Your task to perform on an android device: toggle show notifications on the lock screen Image 0: 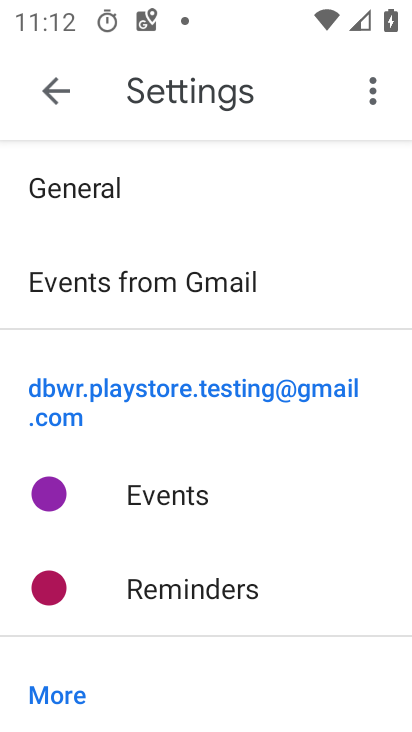
Step 0: press back button
Your task to perform on an android device: toggle show notifications on the lock screen Image 1: 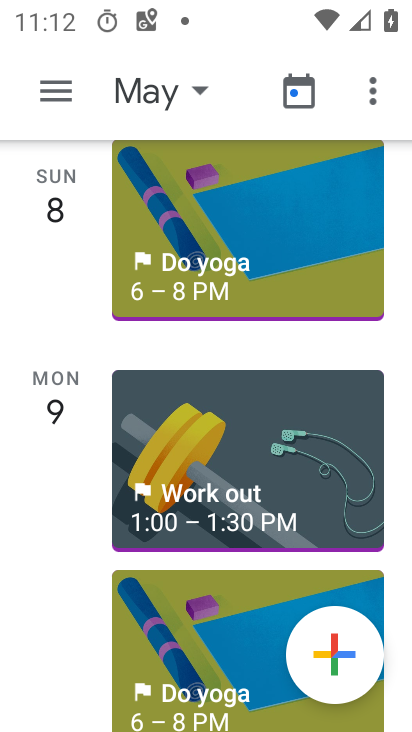
Step 1: press back button
Your task to perform on an android device: toggle show notifications on the lock screen Image 2: 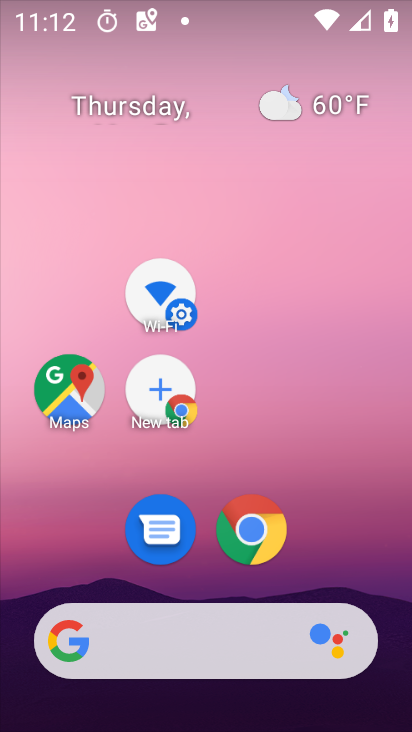
Step 2: drag from (337, 605) to (101, 8)
Your task to perform on an android device: toggle show notifications on the lock screen Image 3: 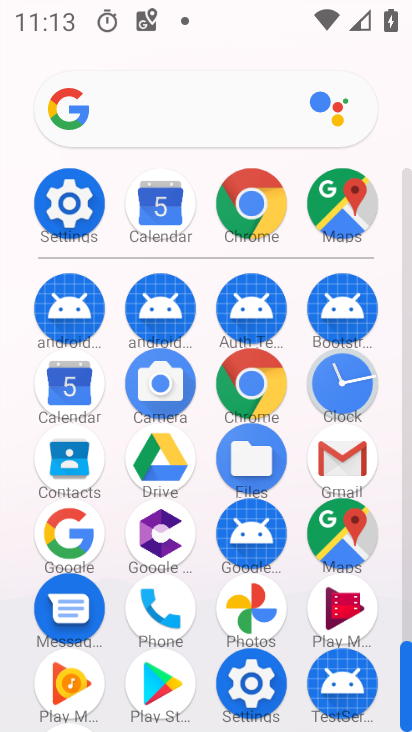
Step 3: click (69, 205)
Your task to perform on an android device: toggle show notifications on the lock screen Image 4: 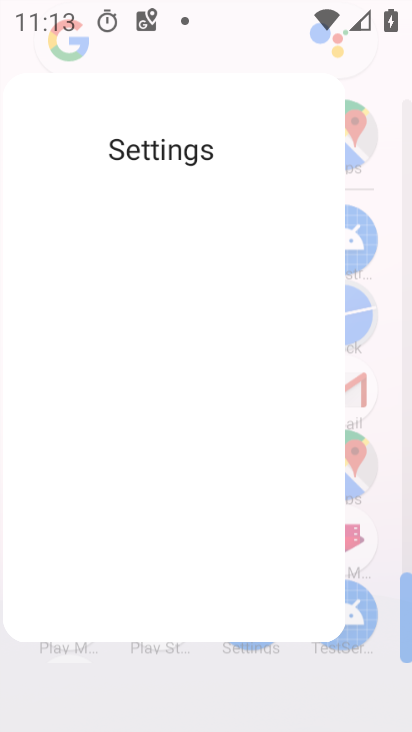
Step 4: click (69, 205)
Your task to perform on an android device: toggle show notifications on the lock screen Image 5: 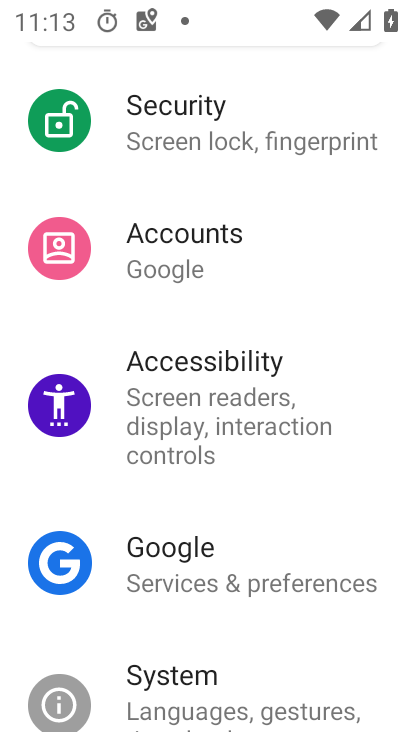
Step 5: drag from (170, 193) to (239, 373)
Your task to perform on an android device: toggle show notifications on the lock screen Image 6: 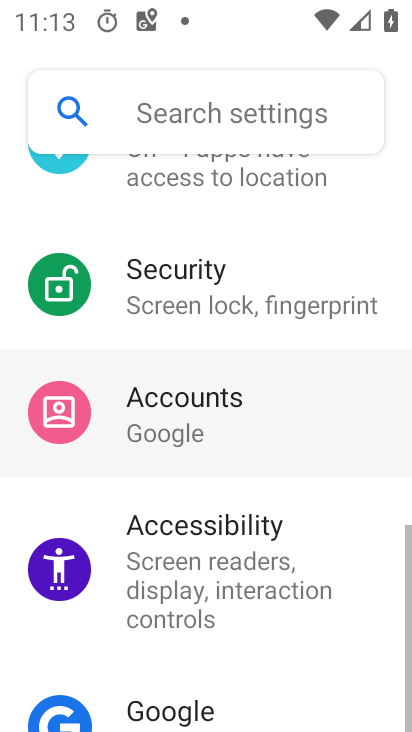
Step 6: drag from (166, 110) to (294, 592)
Your task to perform on an android device: toggle show notifications on the lock screen Image 7: 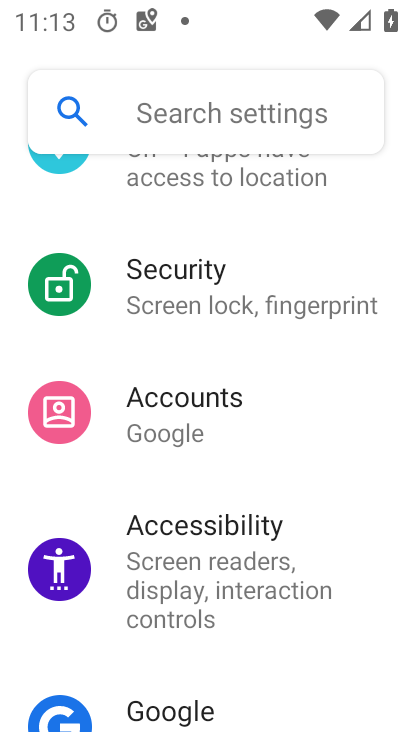
Step 7: drag from (200, 287) to (300, 565)
Your task to perform on an android device: toggle show notifications on the lock screen Image 8: 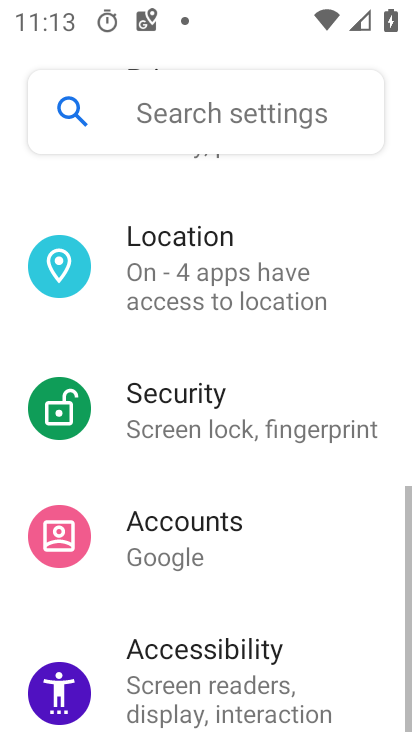
Step 8: drag from (231, 298) to (260, 648)
Your task to perform on an android device: toggle show notifications on the lock screen Image 9: 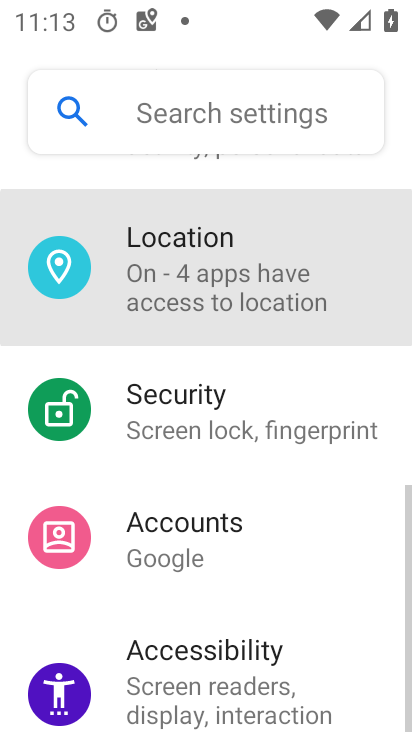
Step 9: drag from (194, 290) to (270, 626)
Your task to perform on an android device: toggle show notifications on the lock screen Image 10: 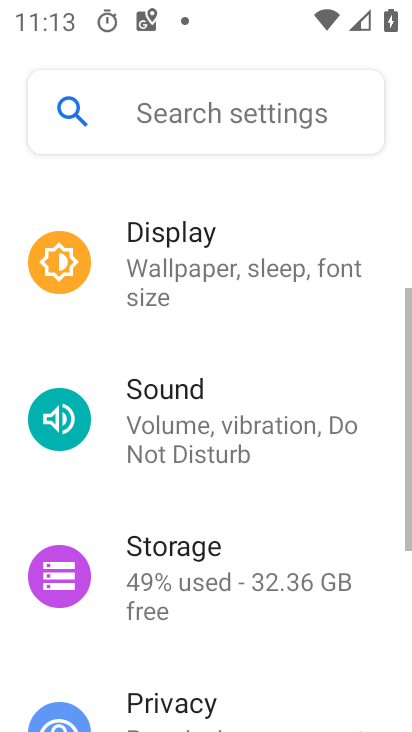
Step 10: drag from (263, 290) to (303, 574)
Your task to perform on an android device: toggle show notifications on the lock screen Image 11: 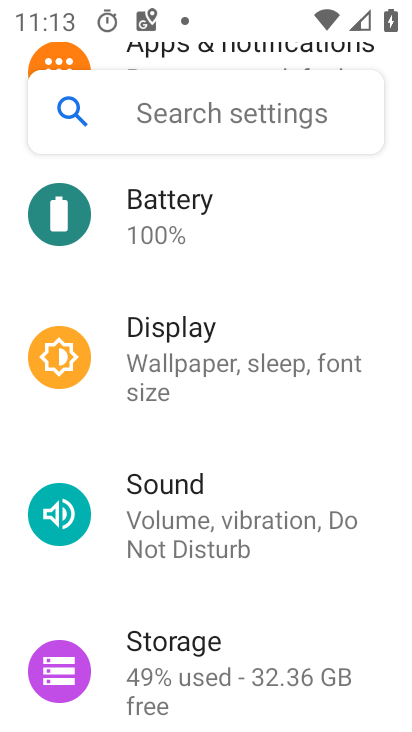
Step 11: drag from (222, 319) to (329, 711)
Your task to perform on an android device: toggle show notifications on the lock screen Image 12: 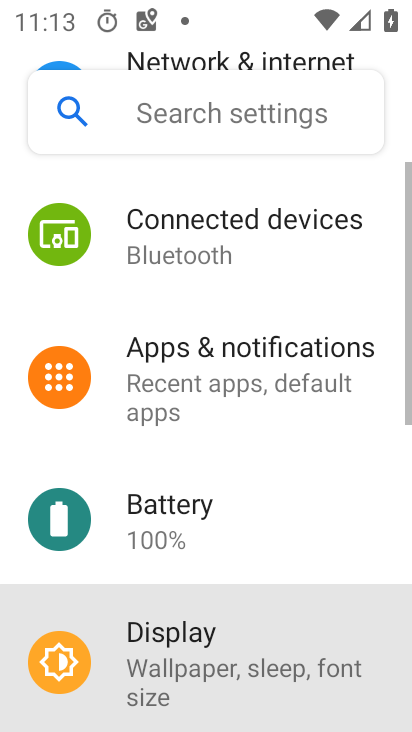
Step 12: drag from (220, 370) to (338, 726)
Your task to perform on an android device: toggle show notifications on the lock screen Image 13: 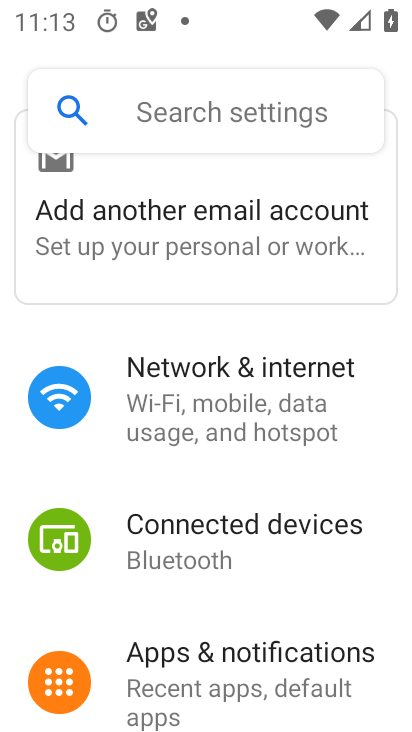
Step 13: click (209, 672)
Your task to perform on an android device: toggle show notifications on the lock screen Image 14: 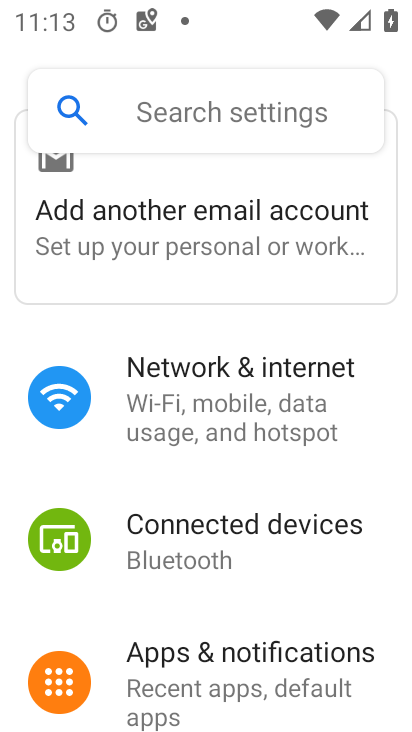
Step 14: click (209, 672)
Your task to perform on an android device: toggle show notifications on the lock screen Image 15: 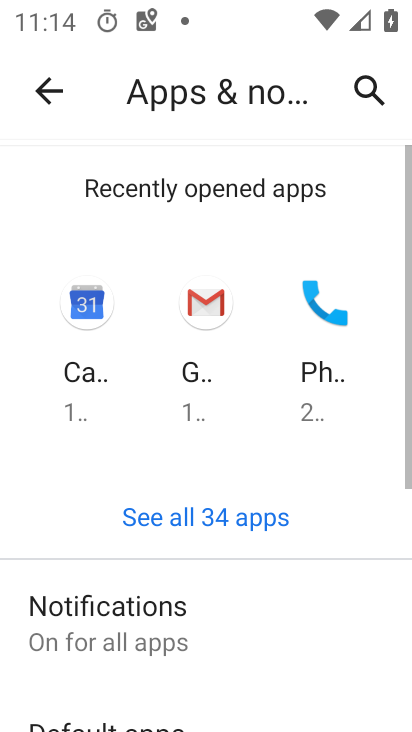
Step 15: drag from (171, 592) to (264, 139)
Your task to perform on an android device: toggle show notifications on the lock screen Image 16: 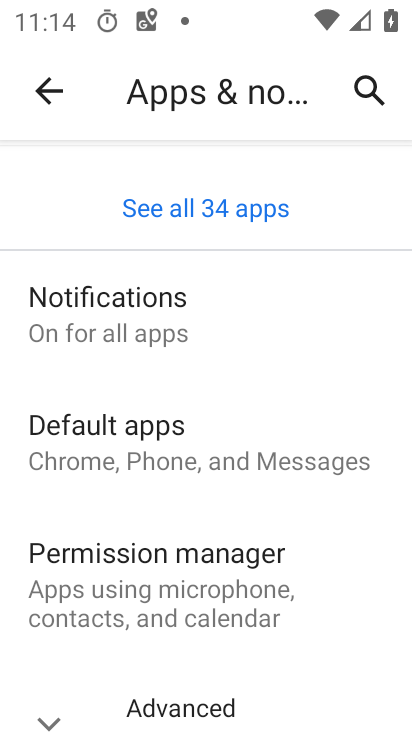
Step 16: click (143, 326)
Your task to perform on an android device: toggle show notifications on the lock screen Image 17: 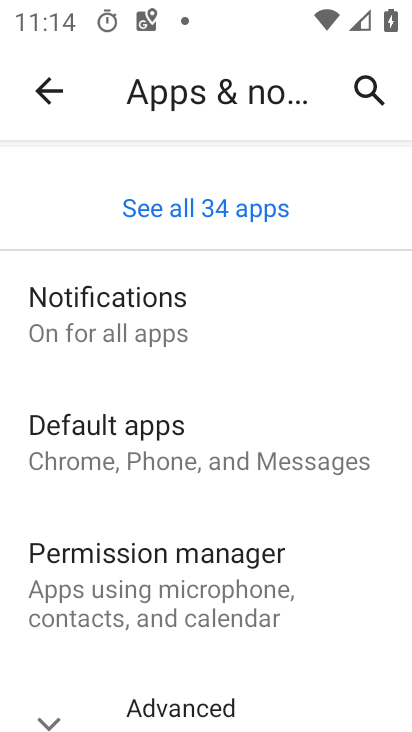
Step 17: click (143, 326)
Your task to perform on an android device: toggle show notifications on the lock screen Image 18: 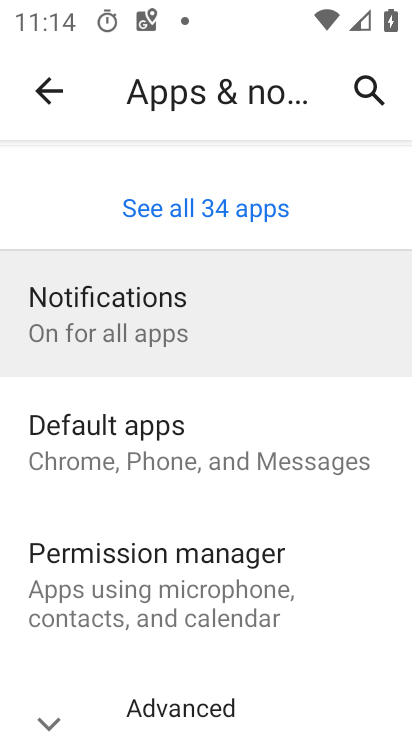
Step 18: click (143, 326)
Your task to perform on an android device: toggle show notifications on the lock screen Image 19: 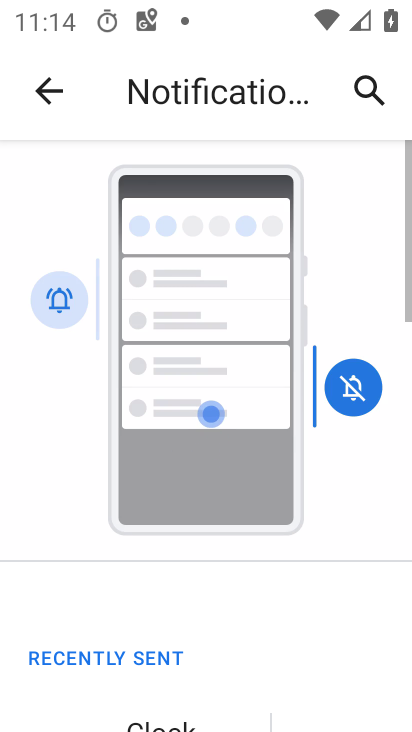
Step 19: drag from (173, 572) to (168, 126)
Your task to perform on an android device: toggle show notifications on the lock screen Image 20: 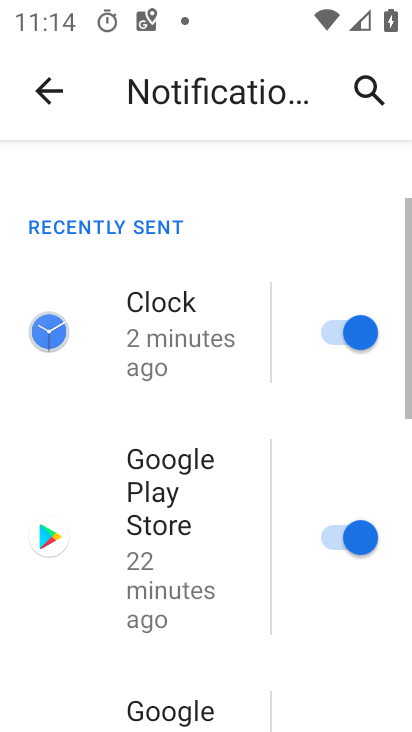
Step 20: drag from (292, 537) to (229, 136)
Your task to perform on an android device: toggle show notifications on the lock screen Image 21: 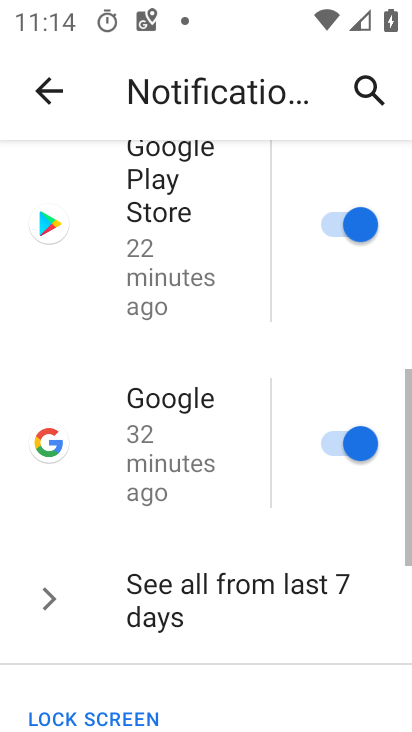
Step 21: drag from (268, 509) to (166, 120)
Your task to perform on an android device: toggle show notifications on the lock screen Image 22: 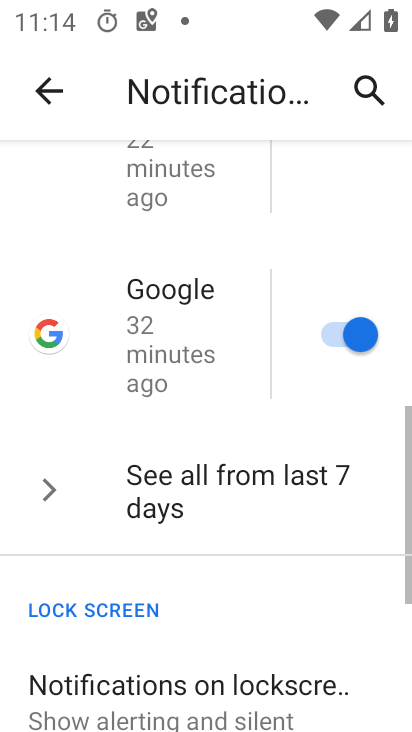
Step 22: drag from (237, 500) to (214, 76)
Your task to perform on an android device: toggle show notifications on the lock screen Image 23: 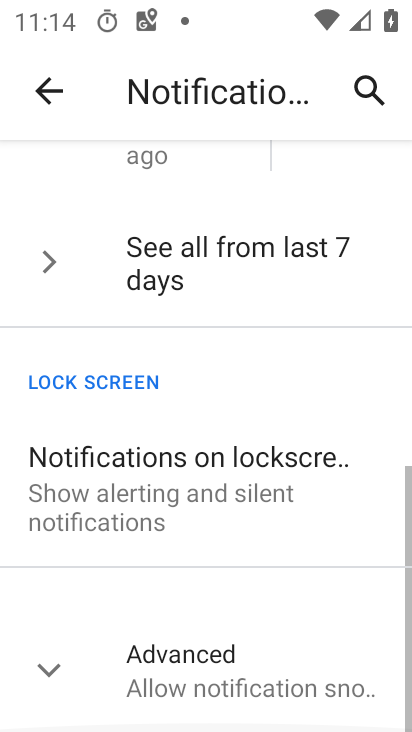
Step 23: drag from (232, 429) to (212, 105)
Your task to perform on an android device: toggle show notifications on the lock screen Image 24: 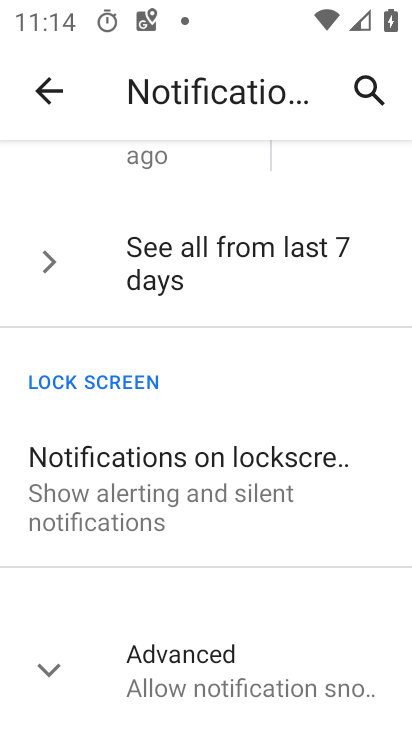
Step 24: click (163, 483)
Your task to perform on an android device: toggle show notifications on the lock screen Image 25: 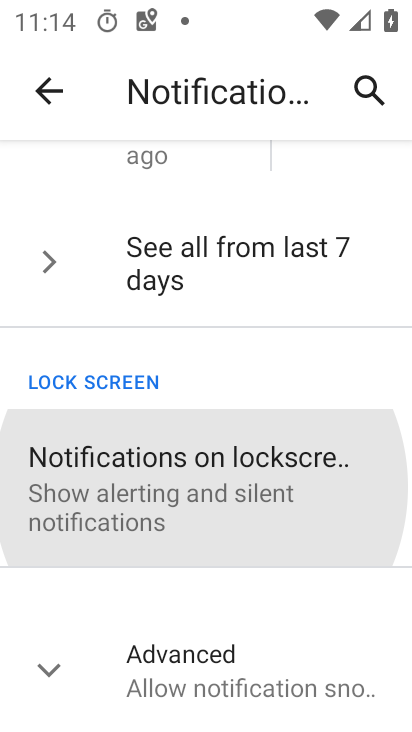
Step 25: click (162, 482)
Your task to perform on an android device: toggle show notifications on the lock screen Image 26: 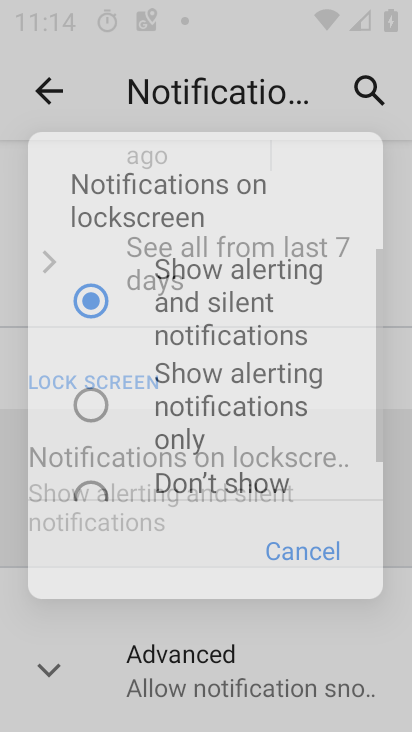
Step 26: click (163, 482)
Your task to perform on an android device: toggle show notifications on the lock screen Image 27: 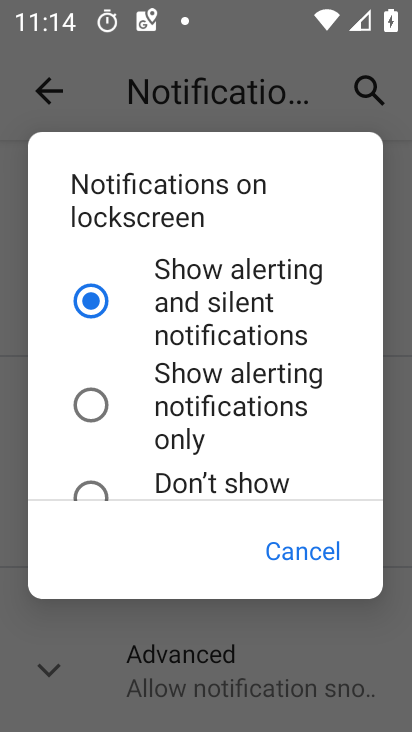
Step 27: task complete